Your task to perform on an android device: When is my next appointment? Image 0: 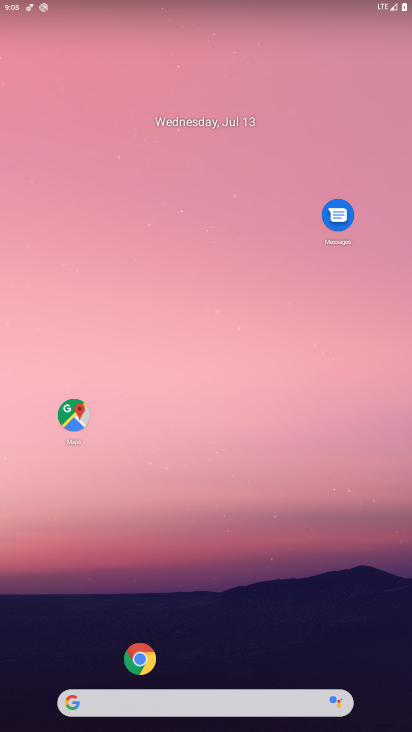
Step 0: drag from (317, 90) to (371, 12)
Your task to perform on an android device: When is my next appointment? Image 1: 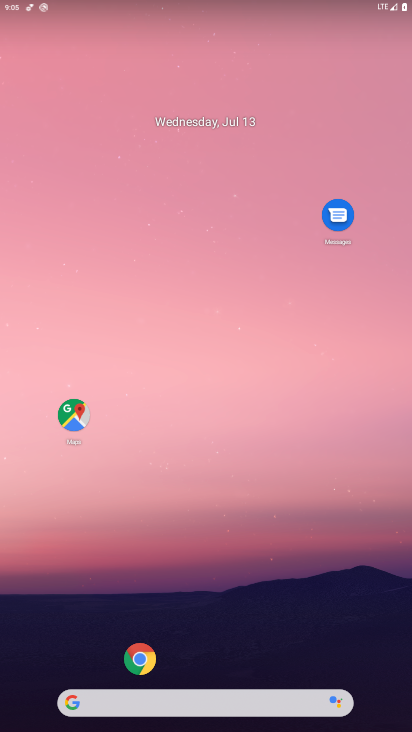
Step 1: drag from (35, 691) to (301, 0)
Your task to perform on an android device: When is my next appointment? Image 2: 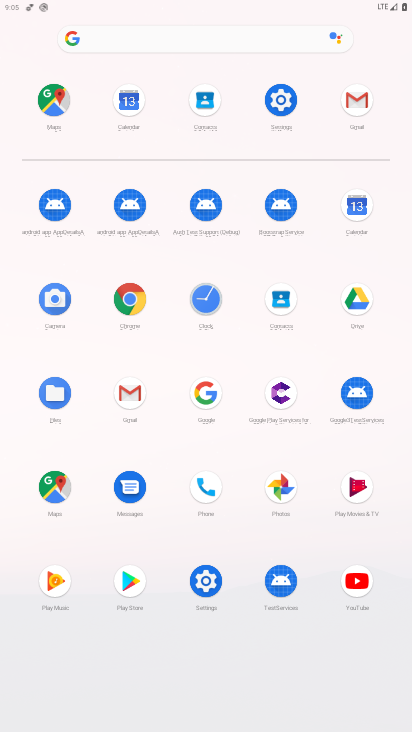
Step 2: click (363, 216)
Your task to perform on an android device: When is my next appointment? Image 3: 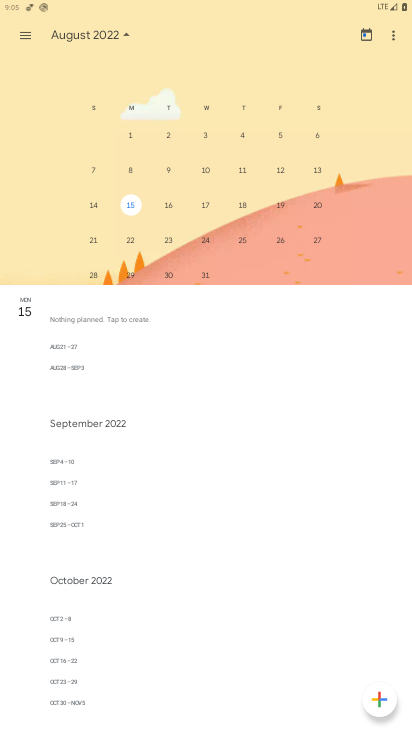
Step 3: task complete